Your task to perform on an android device: turn off translation in the chrome app Image 0: 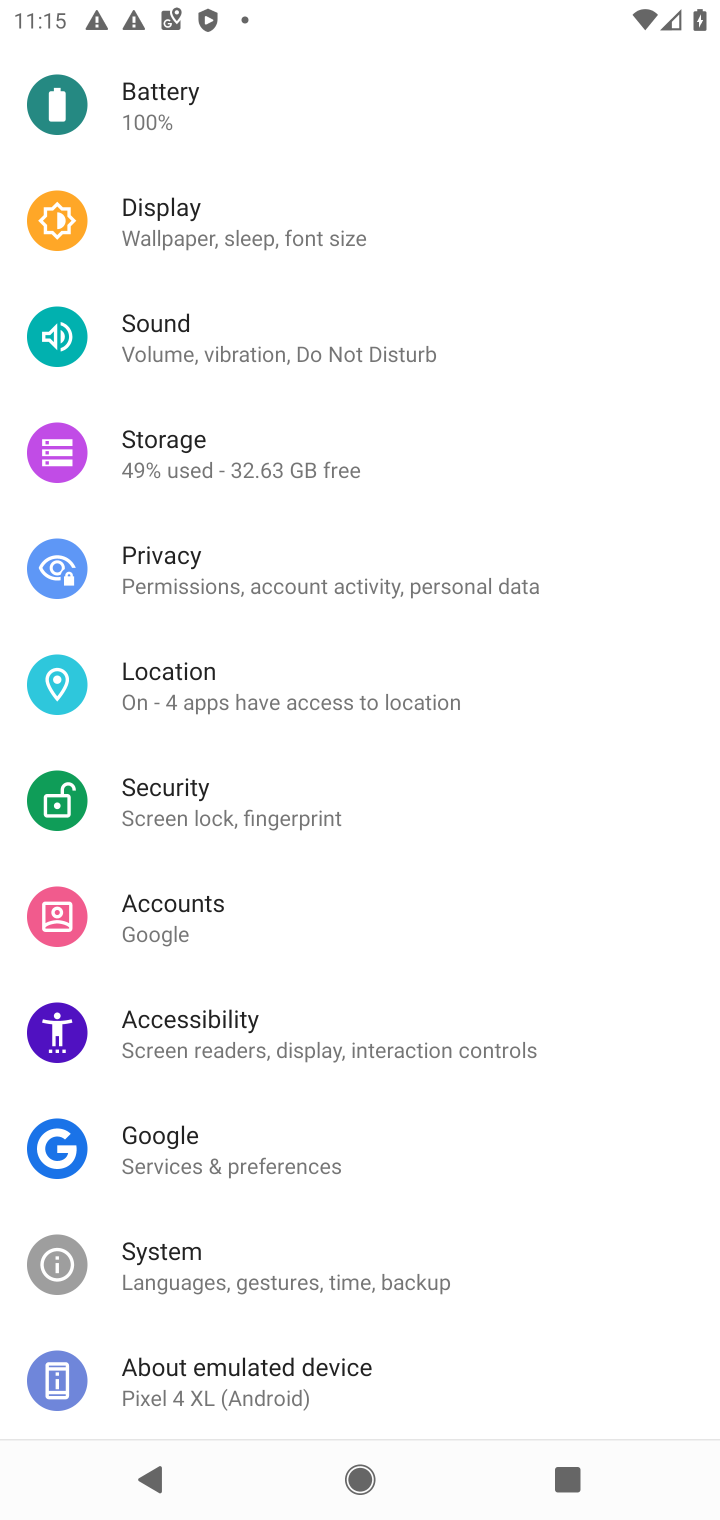
Step 0: press home button
Your task to perform on an android device: turn off translation in the chrome app Image 1: 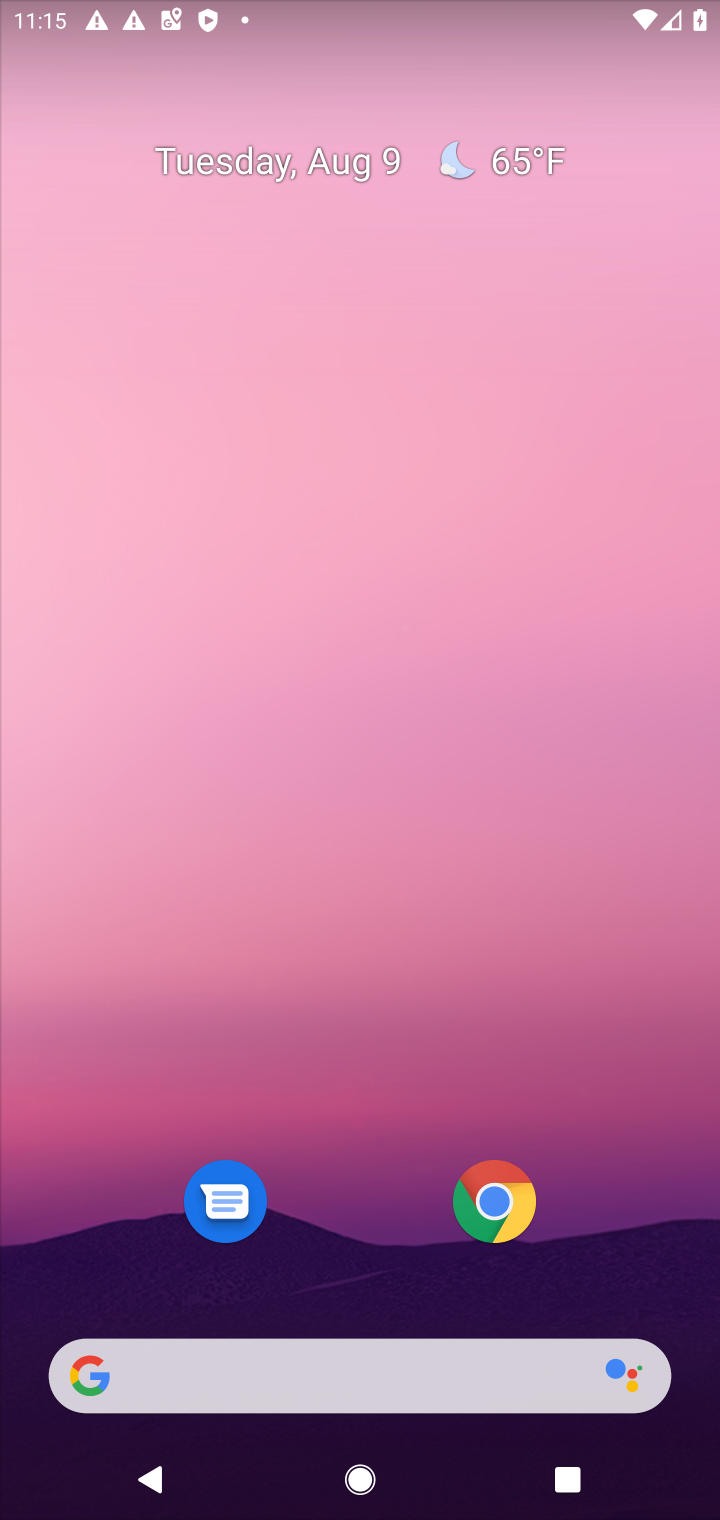
Step 1: click (490, 1223)
Your task to perform on an android device: turn off translation in the chrome app Image 2: 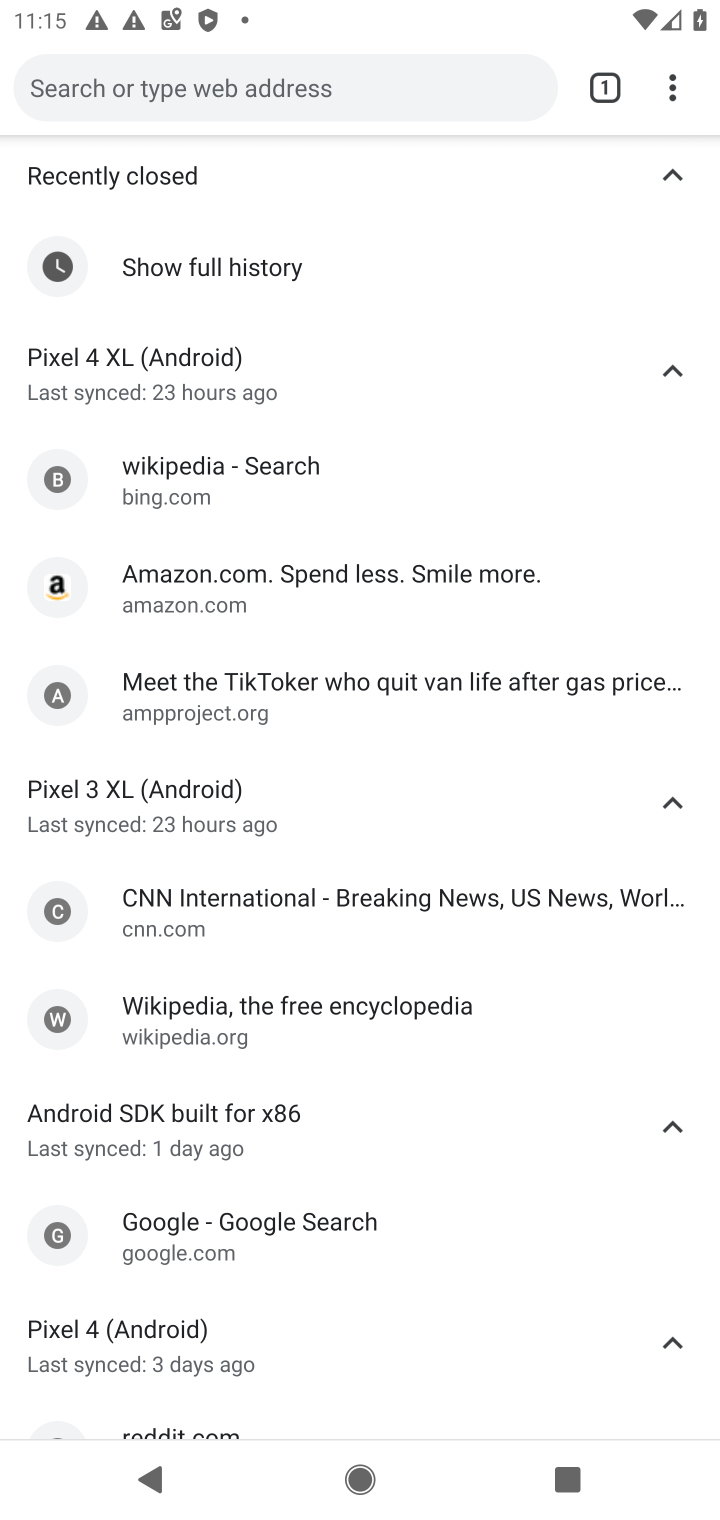
Step 2: drag from (674, 71) to (366, 749)
Your task to perform on an android device: turn off translation in the chrome app Image 3: 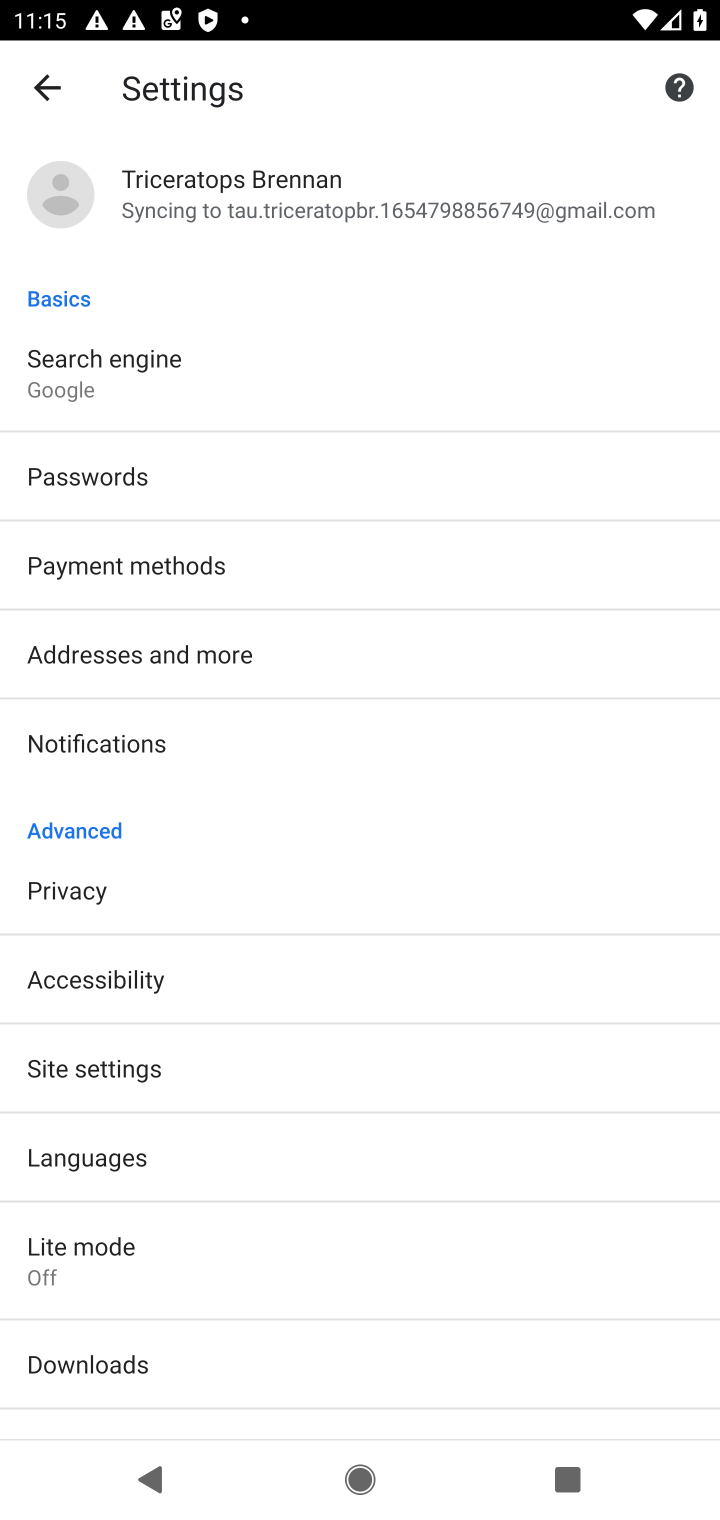
Step 3: click (75, 1156)
Your task to perform on an android device: turn off translation in the chrome app Image 4: 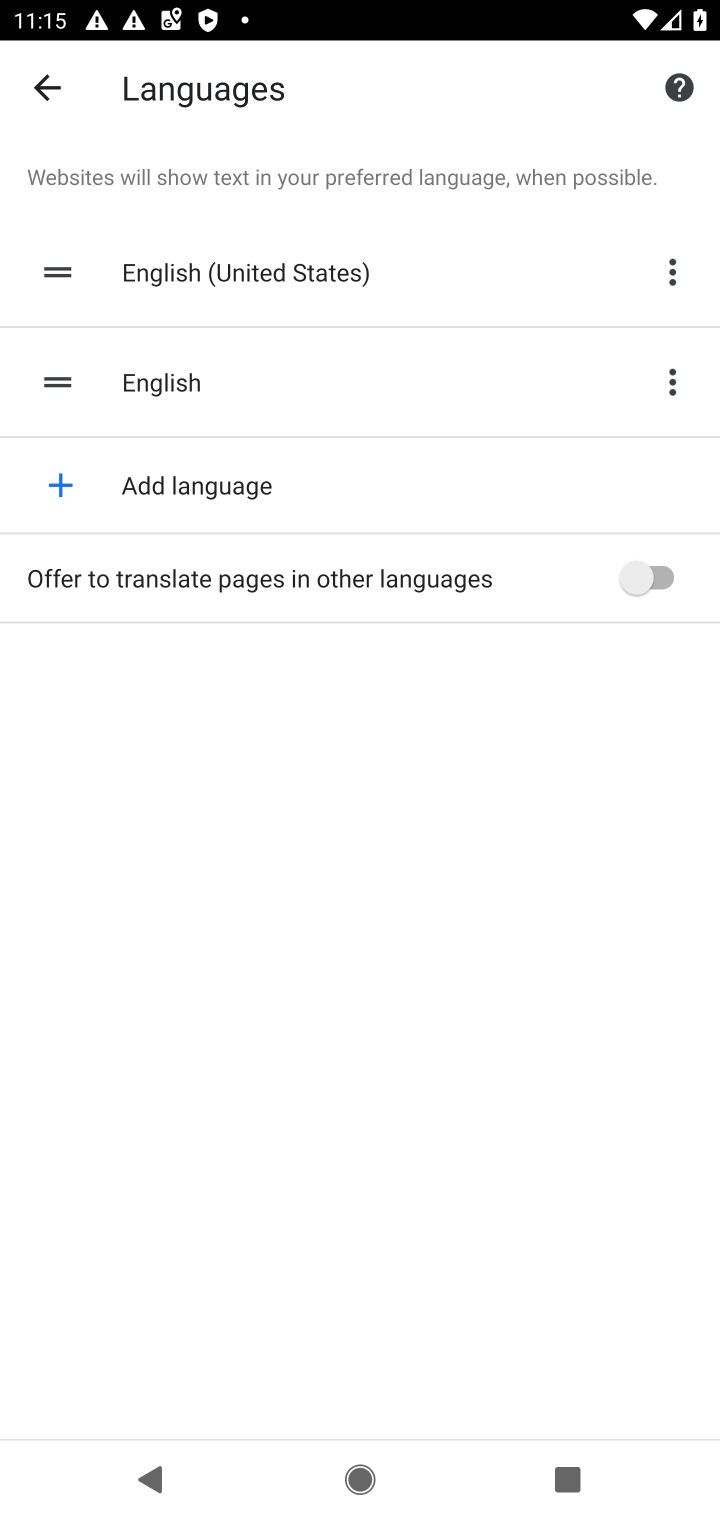
Step 4: task complete